Your task to perform on an android device: see tabs open on other devices in the chrome app Image 0: 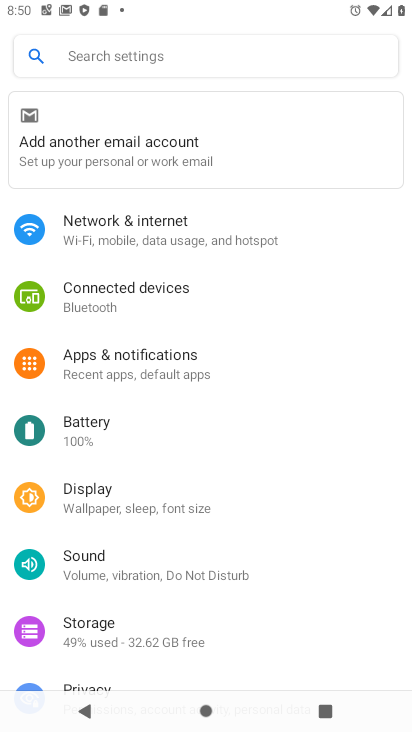
Step 0: press home button
Your task to perform on an android device: see tabs open on other devices in the chrome app Image 1: 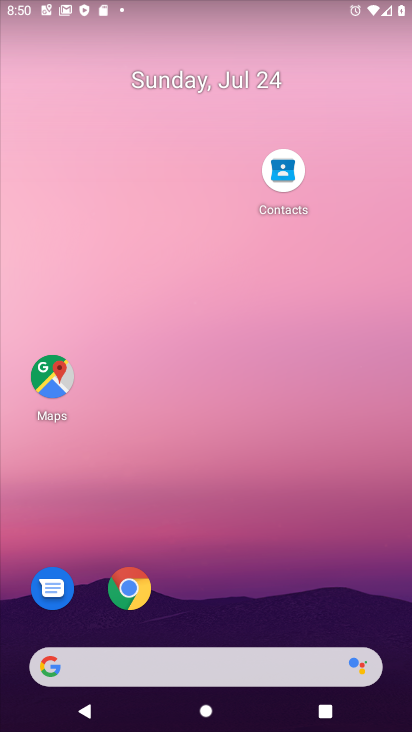
Step 1: click (127, 581)
Your task to perform on an android device: see tabs open on other devices in the chrome app Image 2: 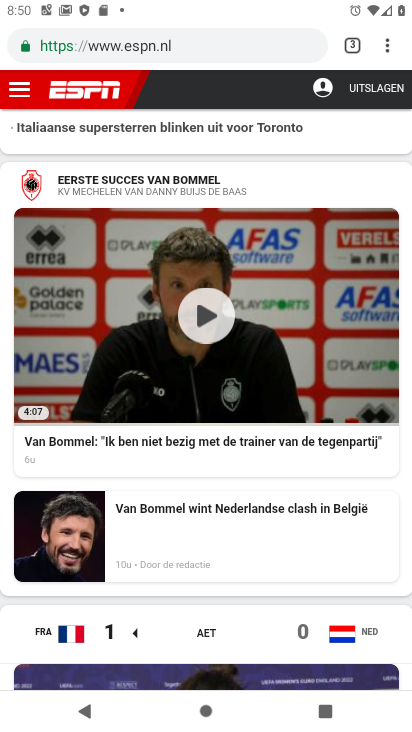
Step 2: click (386, 41)
Your task to perform on an android device: see tabs open on other devices in the chrome app Image 3: 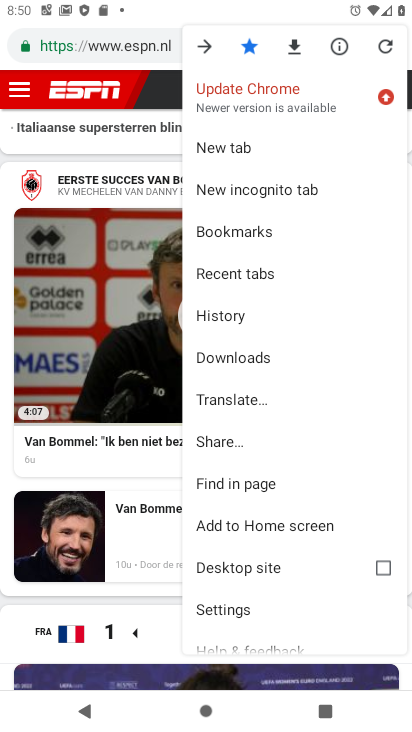
Step 3: click (259, 271)
Your task to perform on an android device: see tabs open on other devices in the chrome app Image 4: 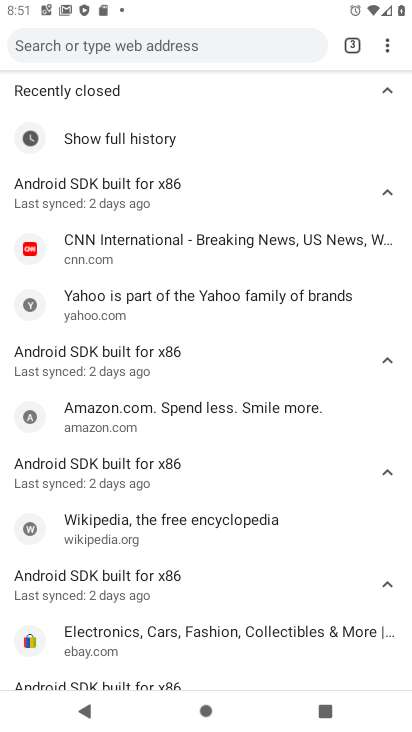
Step 4: task complete